Your task to perform on an android device: set the timer Image 0: 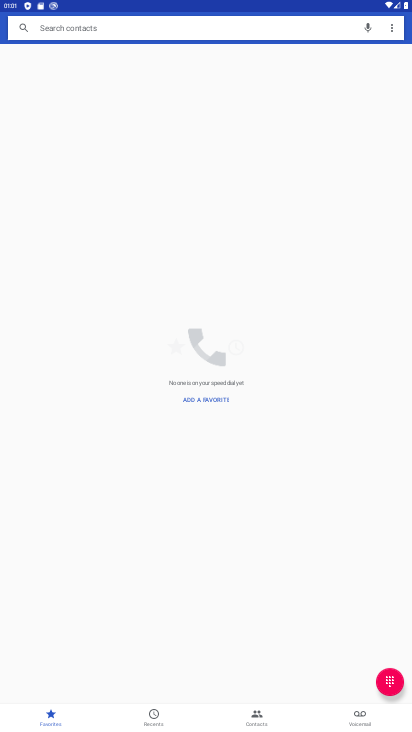
Step 0: press home button
Your task to perform on an android device: set the timer Image 1: 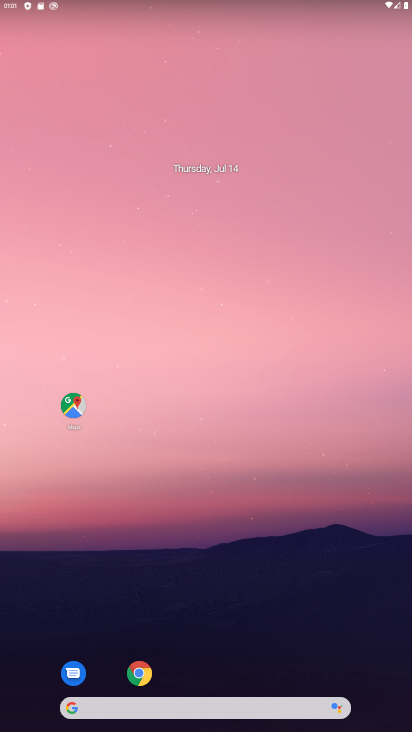
Step 1: drag from (284, 643) to (309, 146)
Your task to perform on an android device: set the timer Image 2: 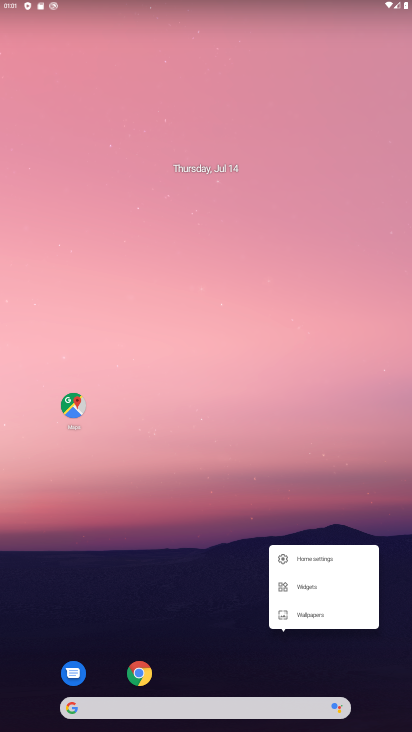
Step 2: click (256, 463)
Your task to perform on an android device: set the timer Image 3: 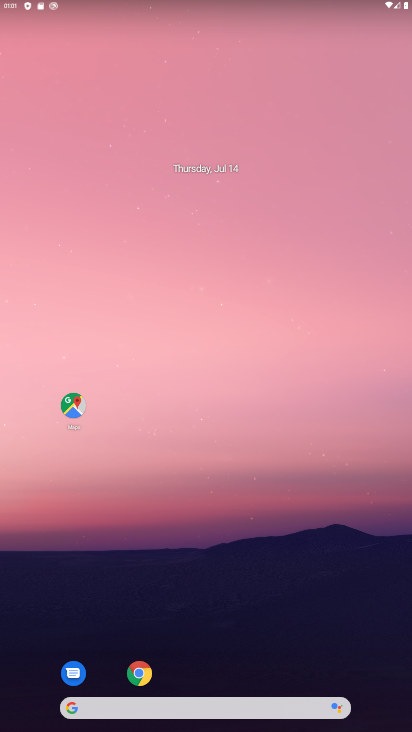
Step 3: drag from (282, 672) to (265, 168)
Your task to perform on an android device: set the timer Image 4: 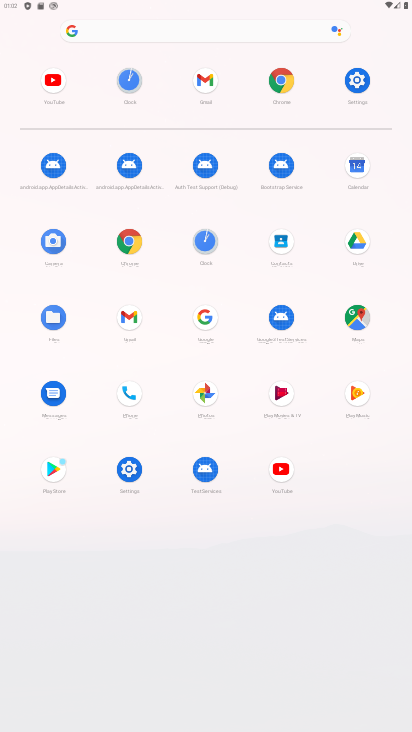
Step 4: click (136, 106)
Your task to perform on an android device: set the timer Image 5: 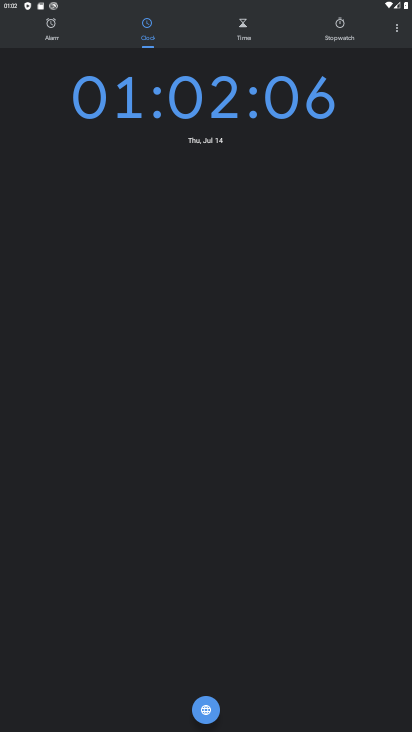
Step 5: click (254, 29)
Your task to perform on an android device: set the timer Image 6: 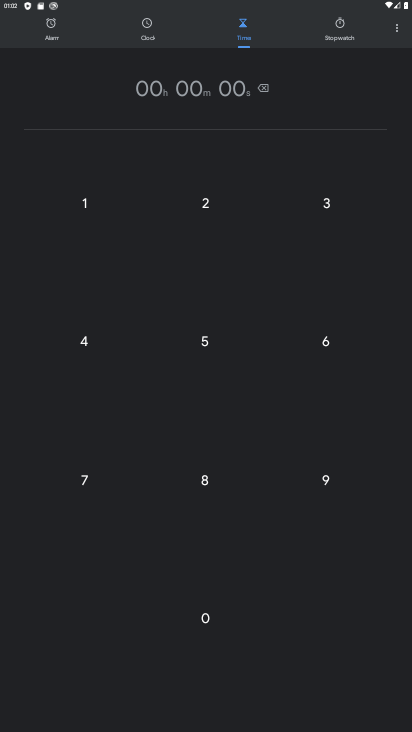
Step 6: task complete